Your task to perform on an android device: change the clock display to analog Image 0: 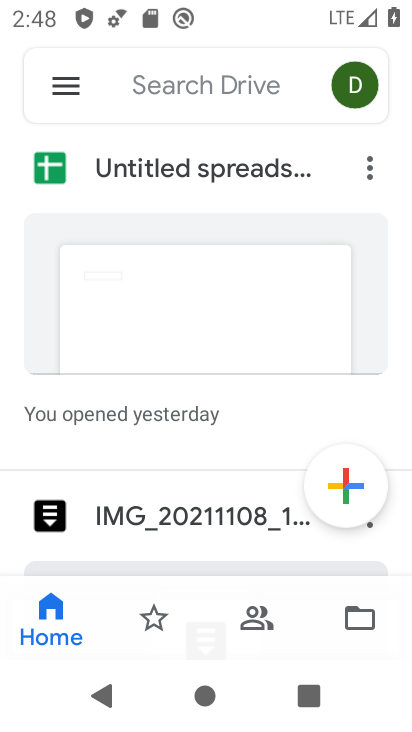
Step 0: press home button
Your task to perform on an android device: change the clock display to analog Image 1: 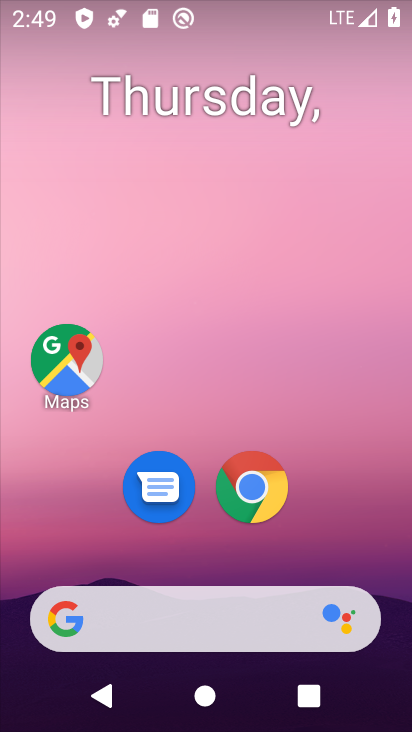
Step 1: drag from (348, 406) to (370, 15)
Your task to perform on an android device: change the clock display to analog Image 2: 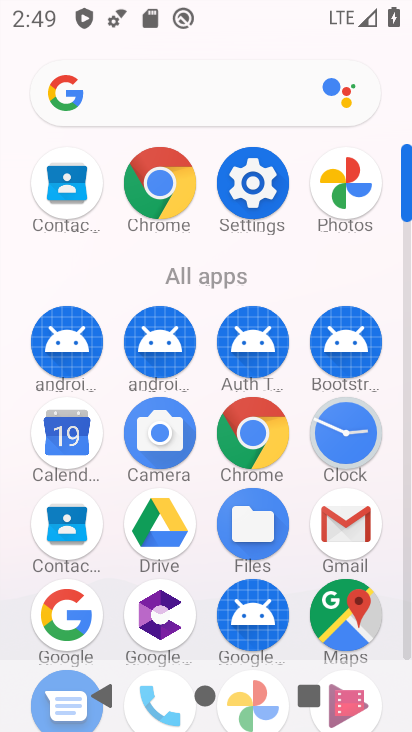
Step 2: click (333, 427)
Your task to perform on an android device: change the clock display to analog Image 3: 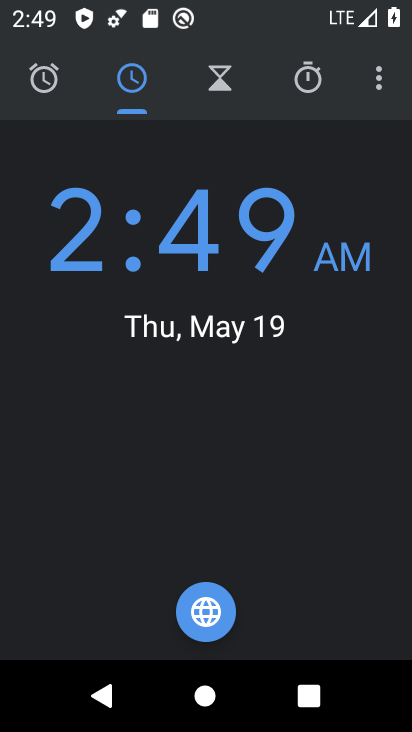
Step 3: click (362, 82)
Your task to perform on an android device: change the clock display to analog Image 4: 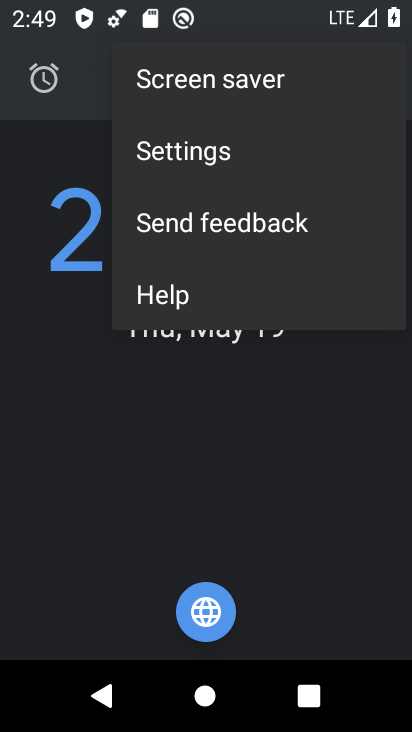
Step 4: click (191, 182)
Your task to perform on an android device: change the clock display to analog Image 5: 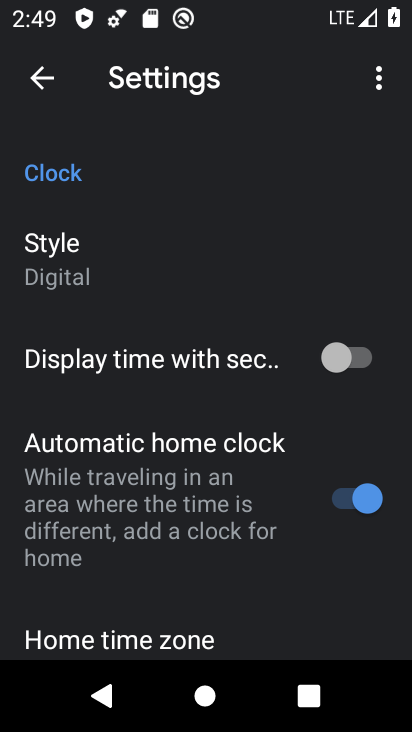
Step 5: click (72, 284)
Your task to perform on an android device: change the clock display to analog Image 6: 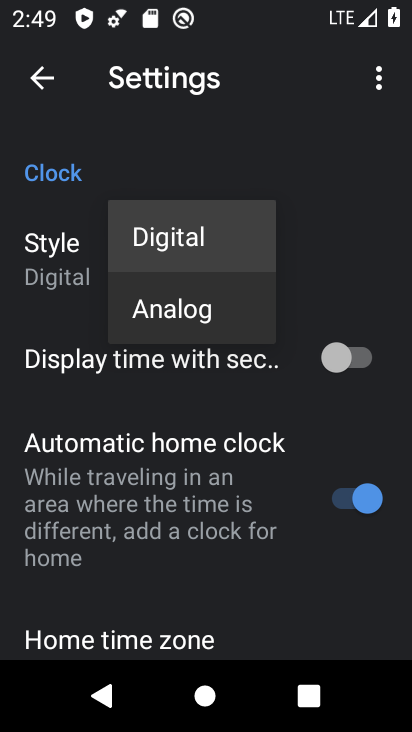
Step 6: click (171, 319)
Your task to perform on an android device: change the clock display to analog Image 7: 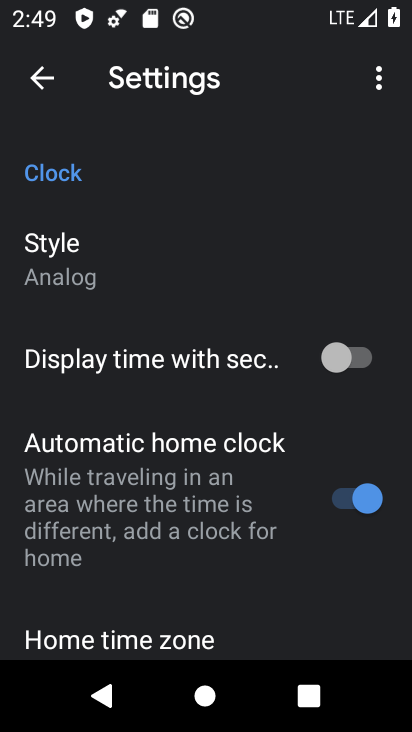
Step 7: task complete